Your task to perform on an android device: check google app version Image 0: 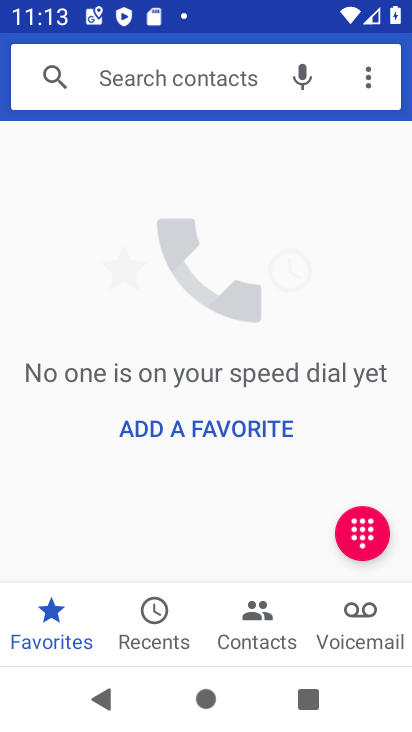
Step 0: press home button
Your task to perform on an android device: check google app version Image 1: 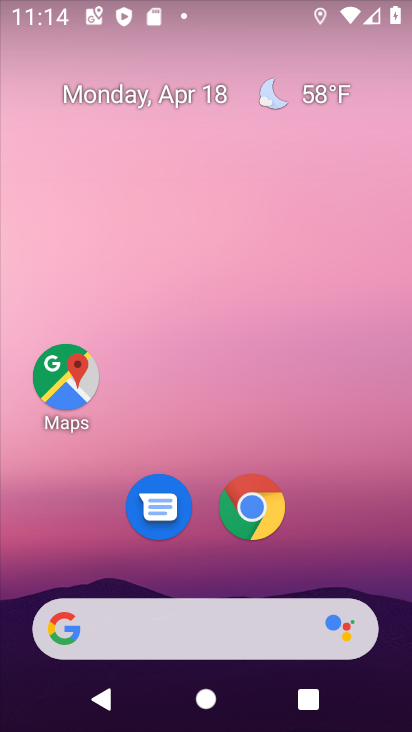
Step 1: drag from (212, 543) to (279, 4)
Your task to perform on an android device: check google app version Image 2: 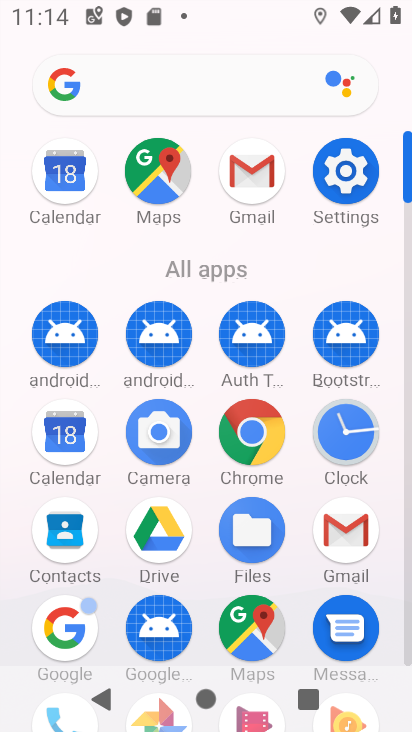
Step 2: click (351, 201)
Your task to perform on an android device: check google app version Image 3: 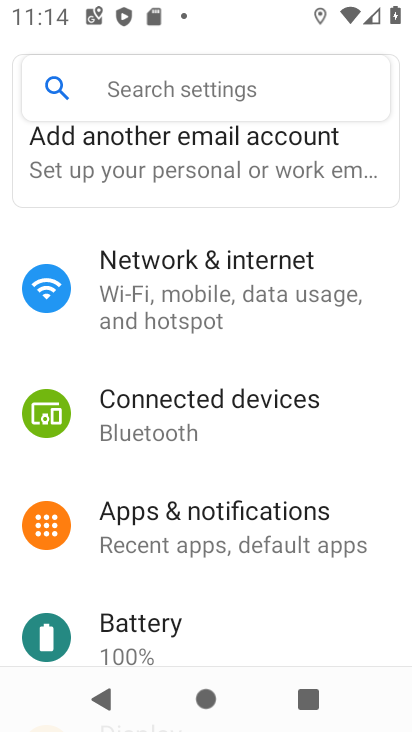
Step 3: drag from (188, 557) to (331, 110)
Your task to perform on an android device: check google app version Image 4: 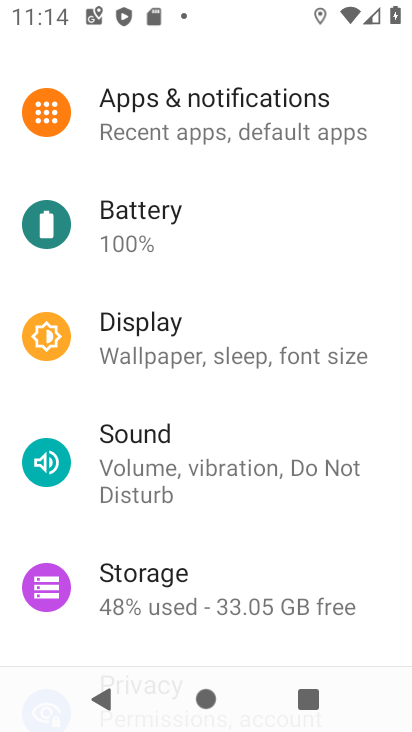
Step 4: drag from (218, 540) to (298, 138)
Your task to perform on an android device: check google app version Image 5: 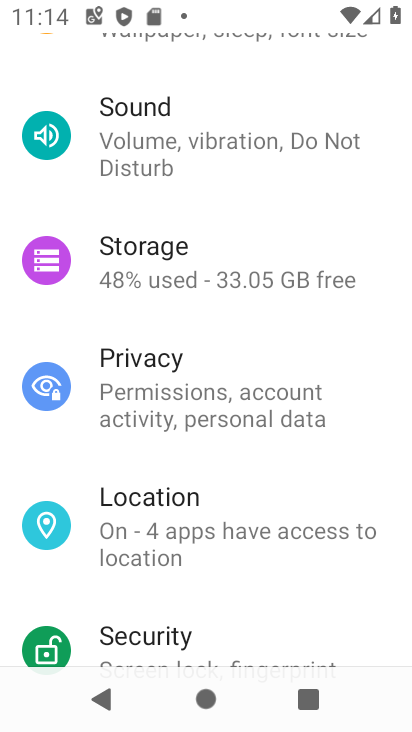
Step 5: drag from (192, 582) to (261, 221)
Your task to perform on an android device: check google app version Image 6: 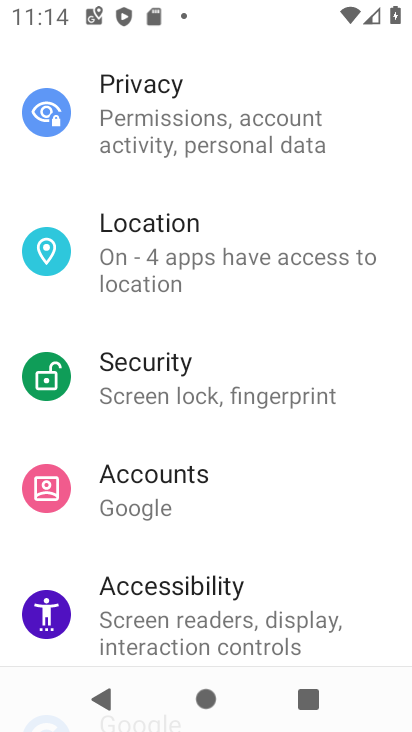
Step 6: drag from (161, 584) to (229, 255)
Your task to perform on an android device: check google app version Image 7: 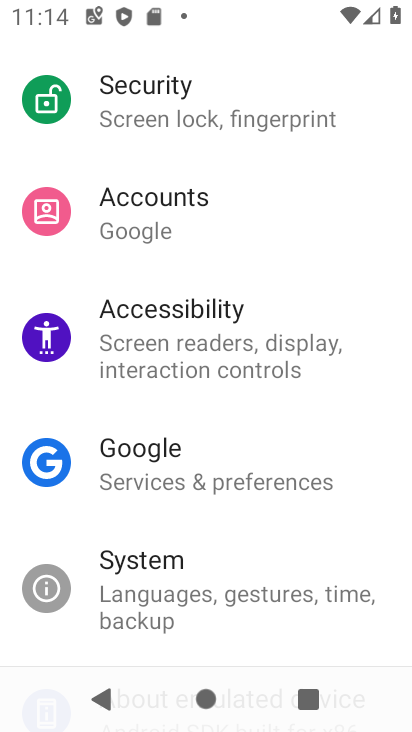
Step 7: drag from (196, 600) to (311, 302)
Your task to perform on an android device: check google app version Image 8: 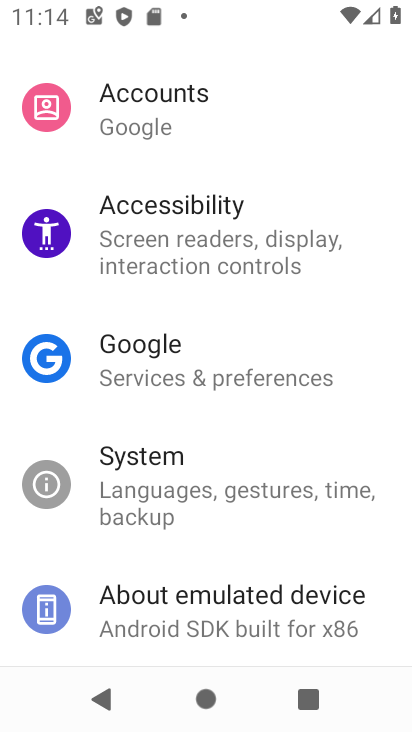
Step 8: press home button
Your task to perform on an android device: check google app version Image 9: 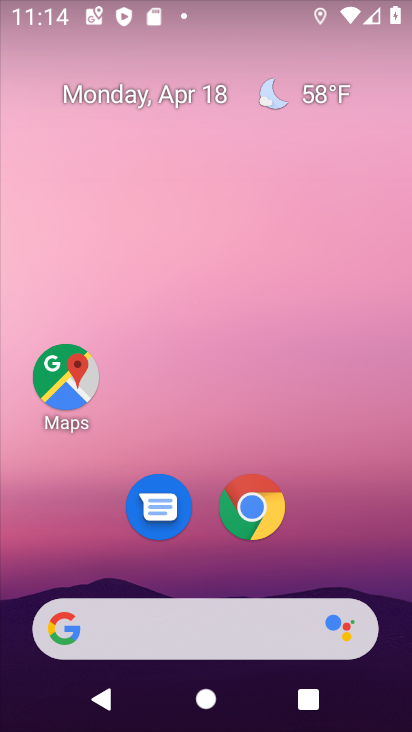
Step 9: click (63, 624)
Your task to perform on an android device: check google app version Image 10: 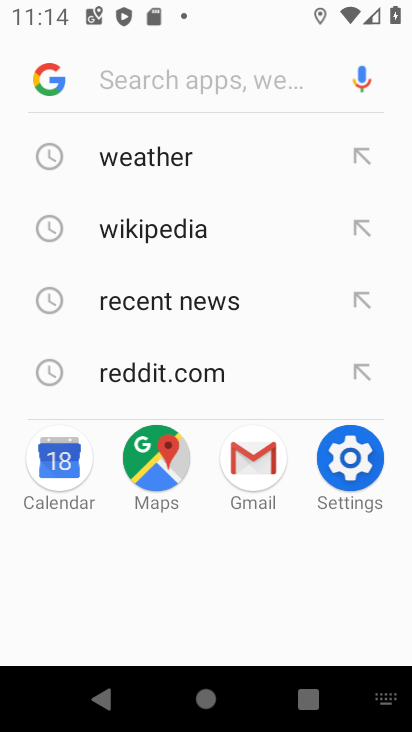
Step 10: click (54, 79)
Your task to perform on an android device: check google app version Image 11: 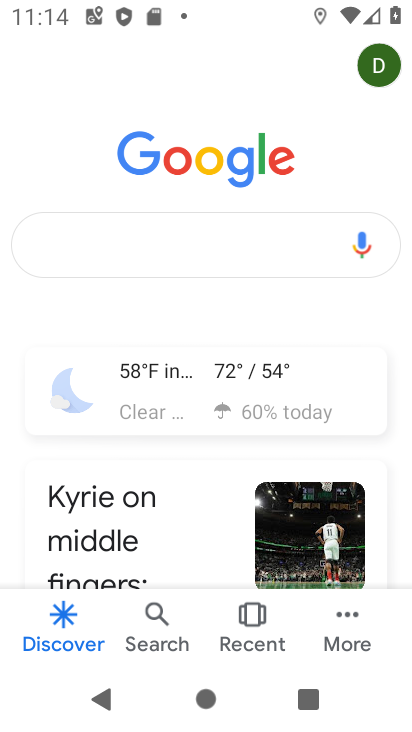
Step 11: click (345, 617)
Your task to perform on an android device: check google app version Image 12: 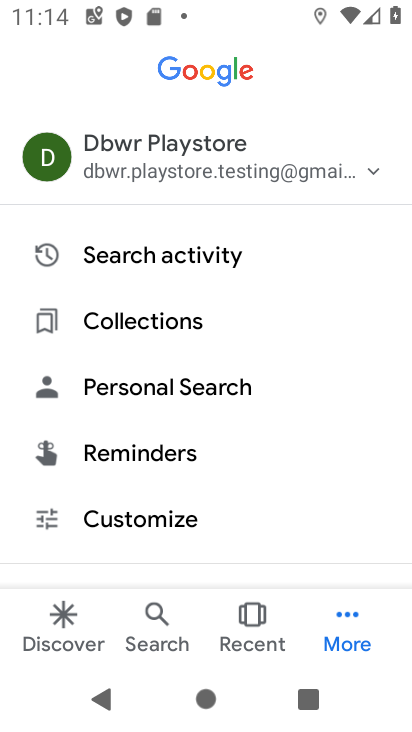
Step 12: drag from (154, 509) to (240, 109)
Your task to perform on an android device: check google app version Image 13: 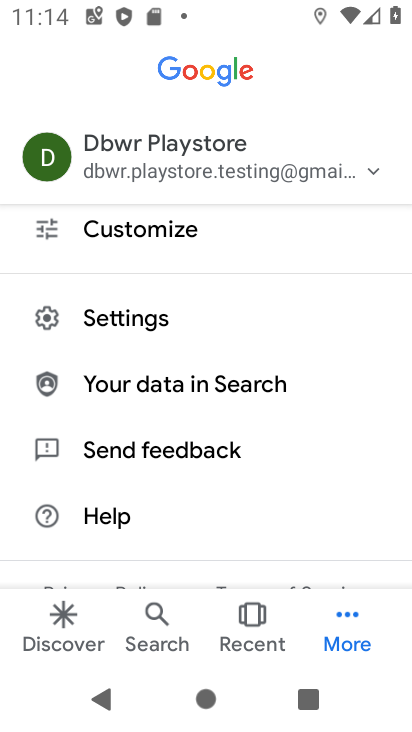
Step 13: click (112, 319)
Your task to perform on an android device: check google app version Image 14: 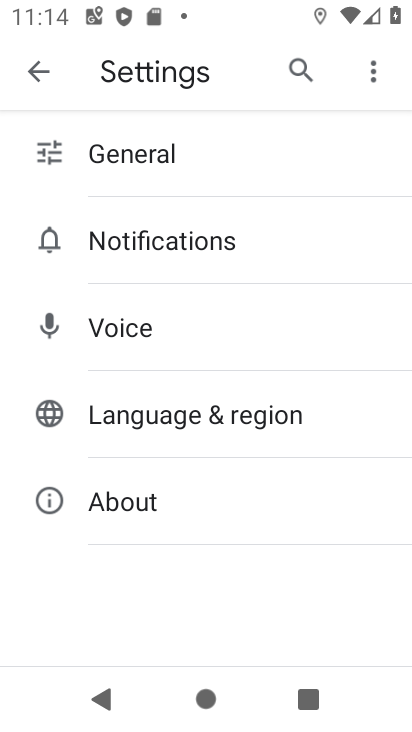
Step 14: click (135, 511)
Your task to perform on an android device: check google app version Image 15: 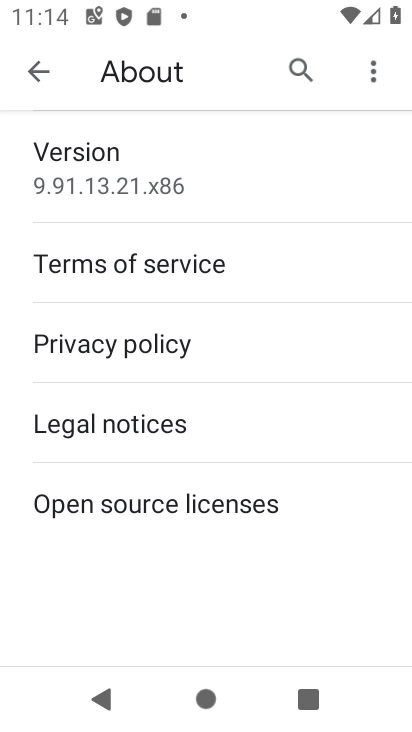
Step 15: task complete